Your task to perform on an android device: check battery use Image 0: 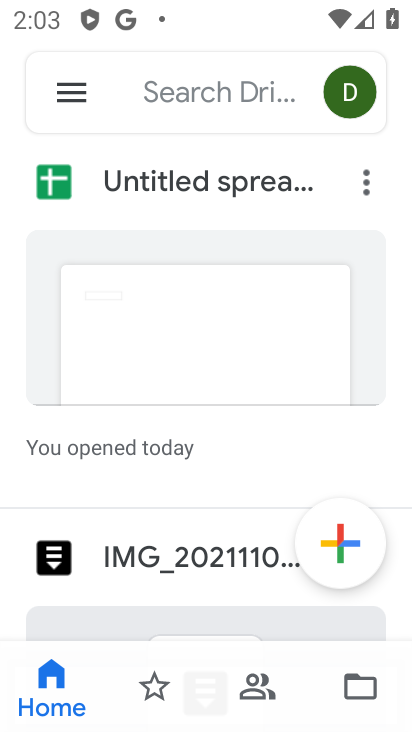
Step 0: press home button
Your task to perform on an android device: check battery use Image 1: 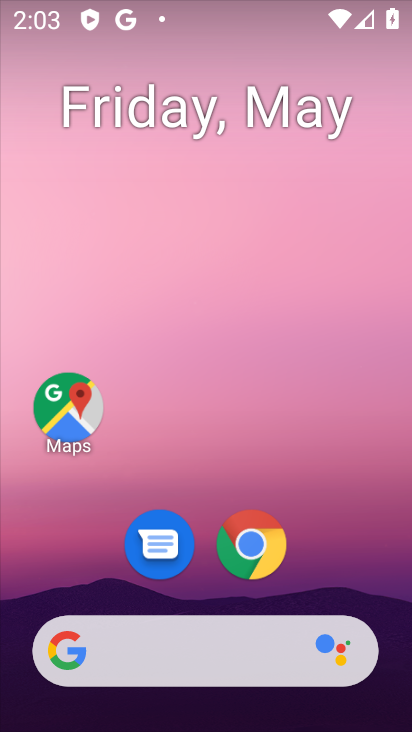
Step 1: drag from (214, 589) to (217, 248)
Your task to perform on an android device: check battery use Image 2: 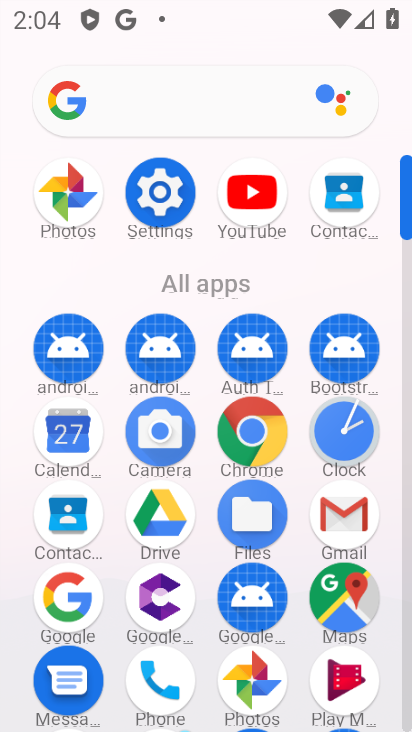
Step 2: click (175, 186)
Your task to perform on an android device: check battery use Image 3: 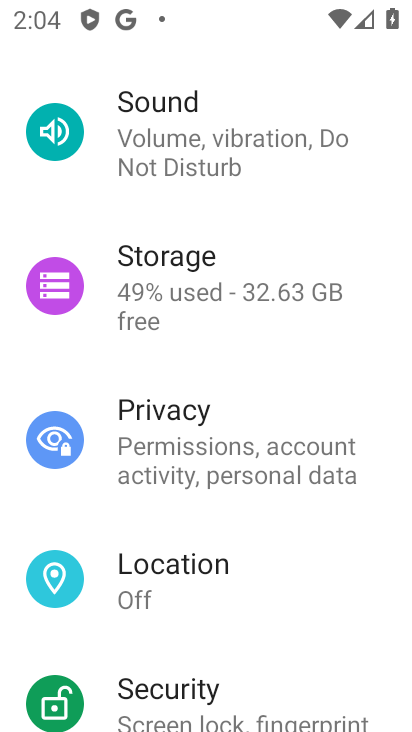
Step 3: drag from (237, 584) to (269, 573)
Your task to perform on an android device: check battery use Image 4: 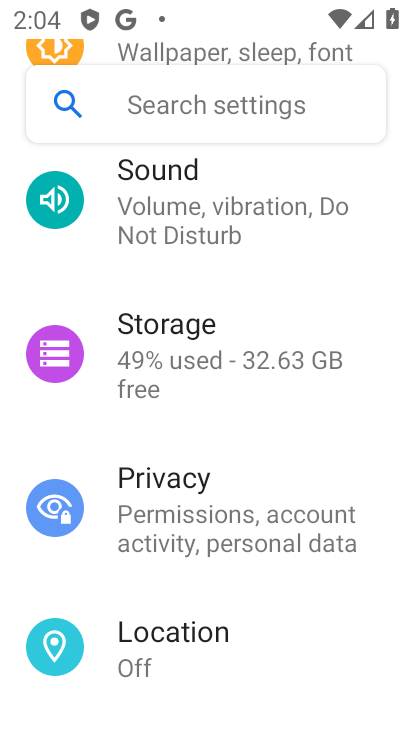
Step 4: drag from (228, 297) to (238, 584)
Your task to perform on an android device: check battery use Image 5: 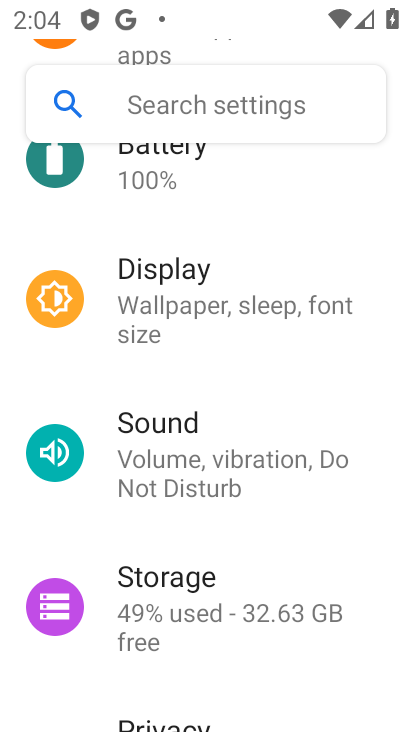
Step 5: drag from (220, 350) to (224, 580)
Your task to perform on an android device: check battery use Image 6: 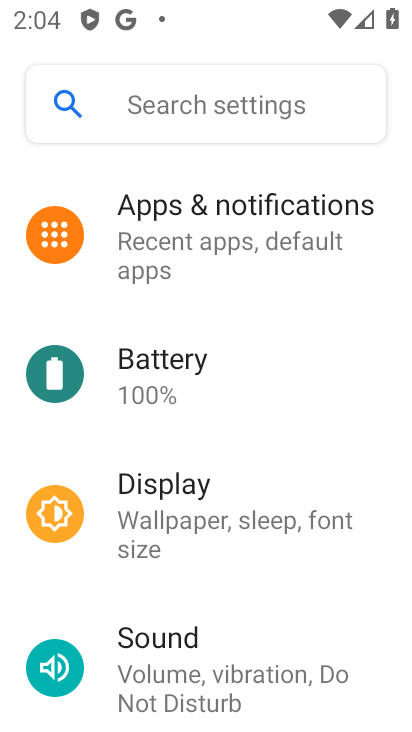
Step 6: click (194, 412)
Your task to perform on an android device: check battery use Image 7: 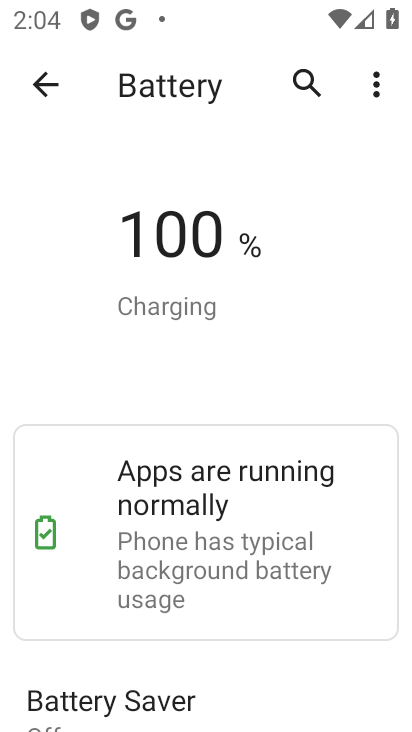
Step 7: click (373, 80)
Your task to perform on an android device: check battery use Image 8: 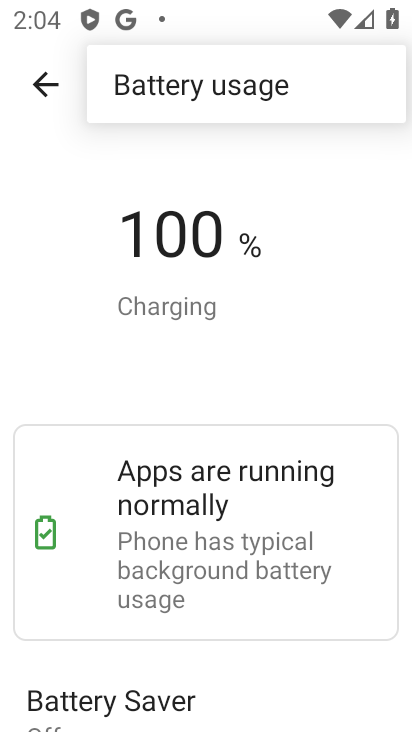
Step 8: click (255, 96)
Your task to perform on an android device: check battery use Image 9: 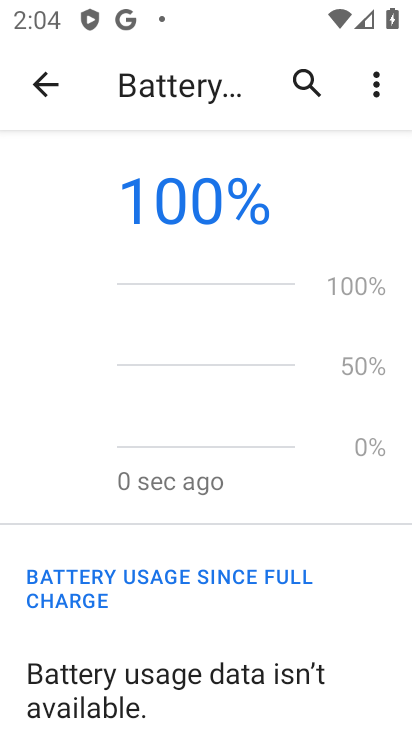
Step 9: task complete